Your task to perform on an android device: Open Wikipedia Image 0: 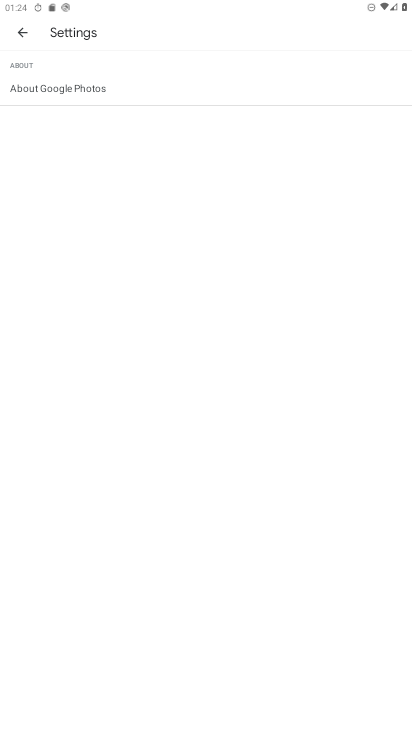
Step 0: press home button
Your task to perform on an android device: Open Wikipedia Image 1: 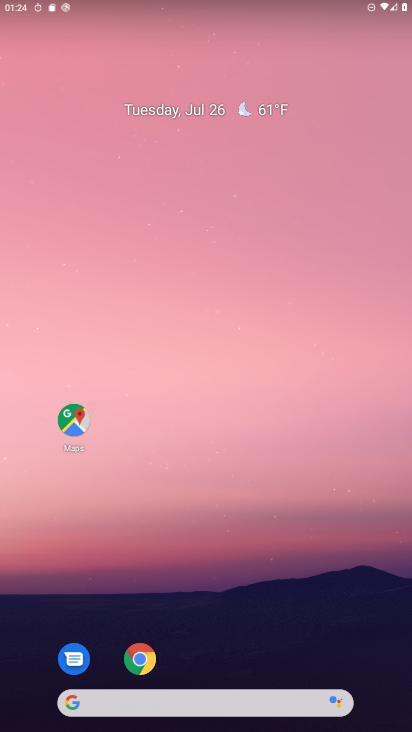
Step 1: click (124, 695)
Your task to perform on an android device: Open Wikipedia Image 2: 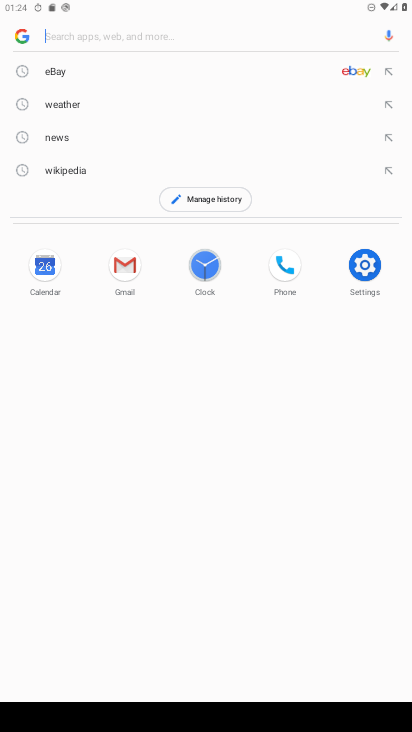
Step 2: click (71, 166)
Your task to perform on an android device: Open Wikipedia Image 3: 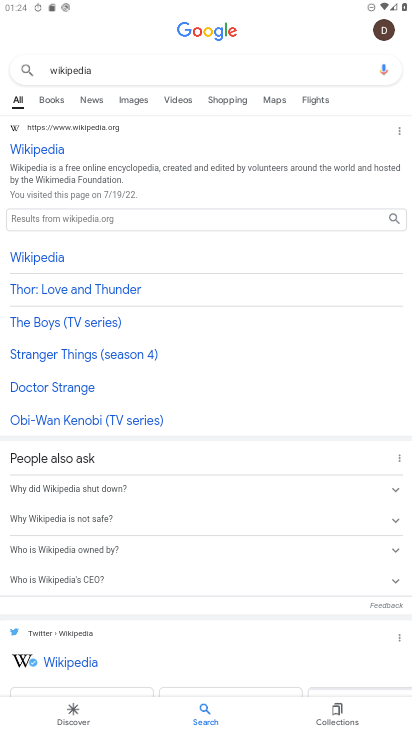
Step 3: task complete